Your task to perform on an android device: toggle javascript in the chrome app Image 0: 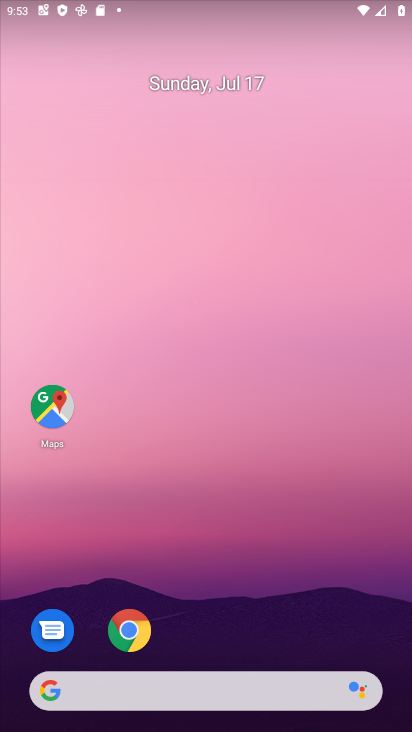
Step 0: click (144, 631)
Your task to perform on an android device: toggle javascript in the chrome app Image 1: 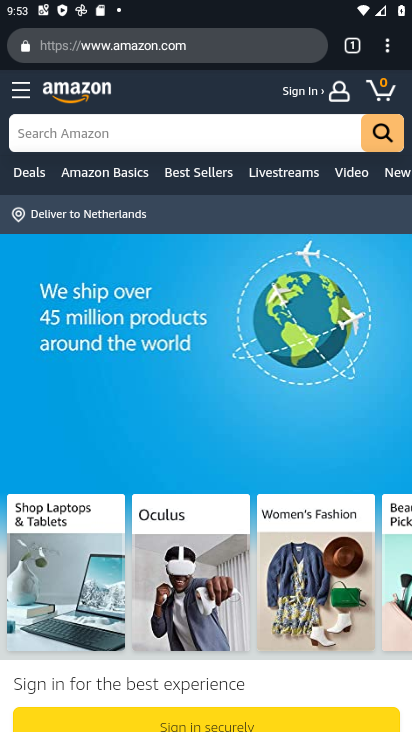
Step 1: click (390, 43)
Your task to perform on an android device: toggle javascript in the chrome app Image 2: 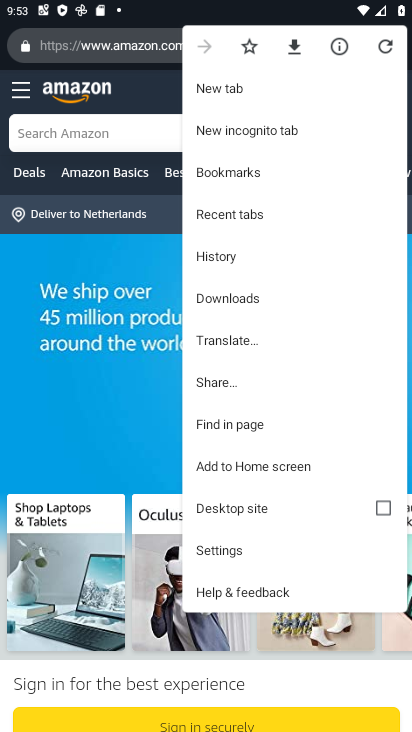
Step 2: click (213, 545)
Your task to perform on an android device: toggle javascript in the chrome app Image 3: 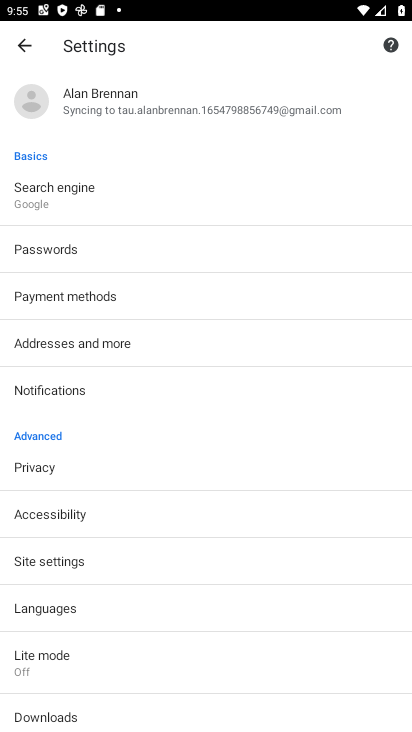
Step 3: click (125, 564)
Your task to perform on an android device: toggle javascript in the chrome app Image 4: 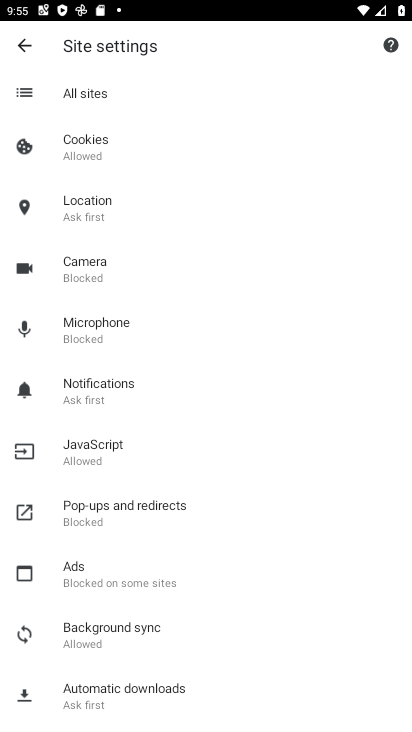
Step 4: click (181, 455)
Your task to perform on an android device: toggle javascript in the chrome app Image 5: 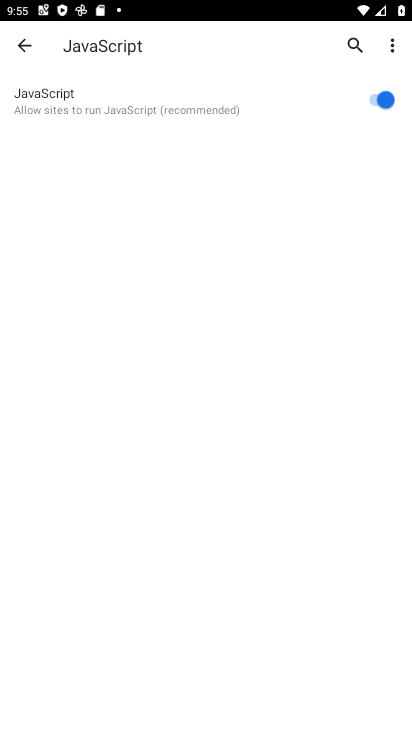
Step 5: click (379, 108)
Your task to perform on an android device: toggle javascript in the chrome app Image 6: 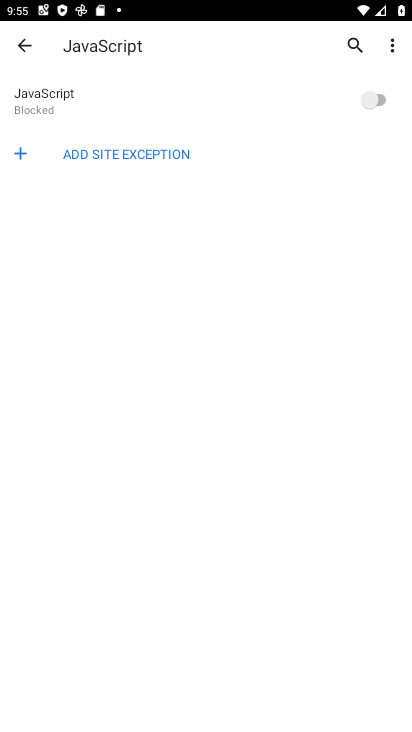
Step 6: task complete